Your task to perform on an android device: Check the weather Image 0: 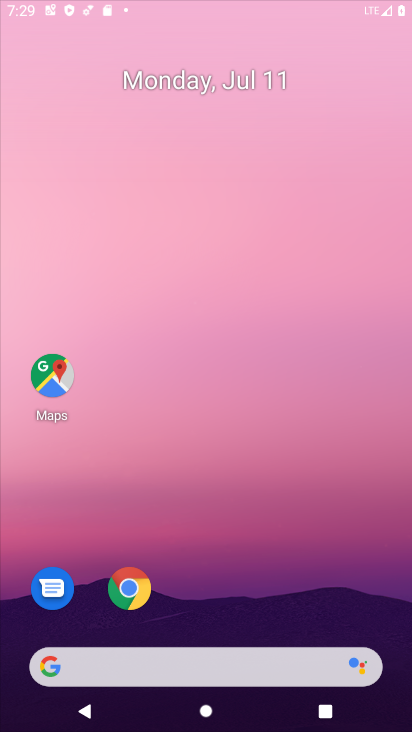
Step 0: click (248, 108)
Your task to perform on an android device: Check the weather Image 1: 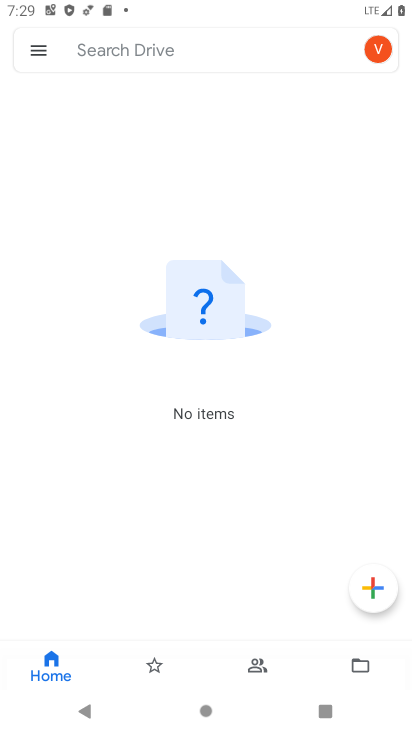
Step 1: press home button
Your task to perform on an android device: Check the weather Image 2: 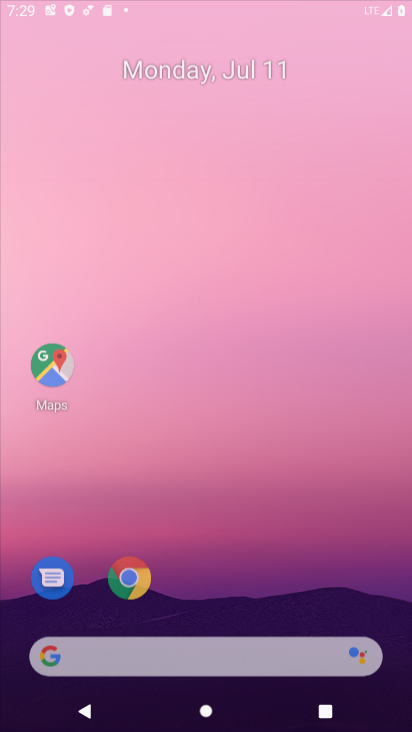
Step 2: drag from (314, 582) to (195, 43)
Your task to perform on an android device: Check the weather Image 3: 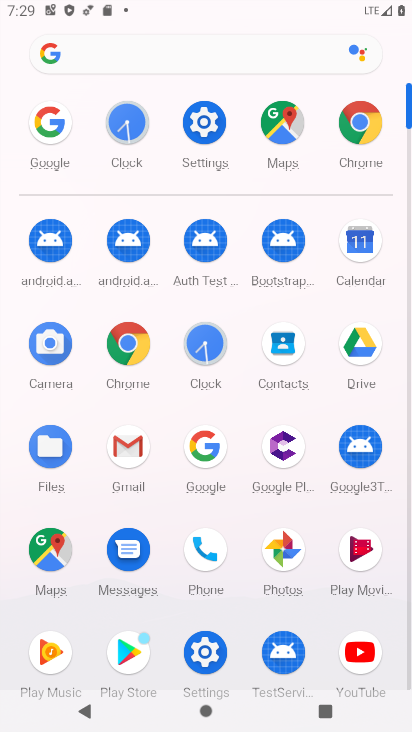
Step 3: click (182, 454)
Your task to perform on an android device: Check the weather Image 4: 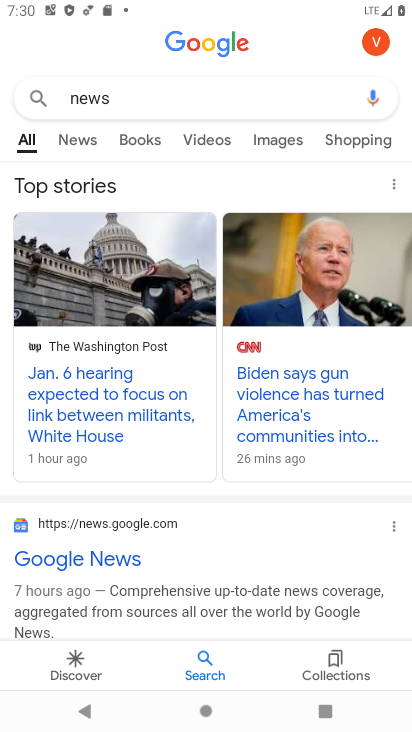
Step 4: press back button
Your task to perform on an android device: Check the weather Image 5: 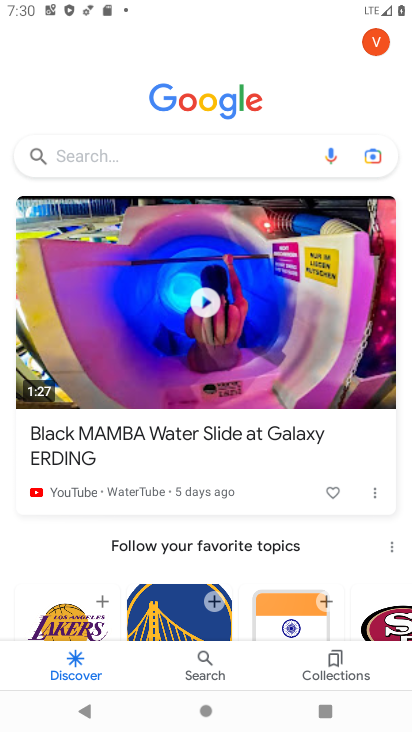
Step 5: click (123, 92)
Your task to perform on an android device: Check the weather Image 6: 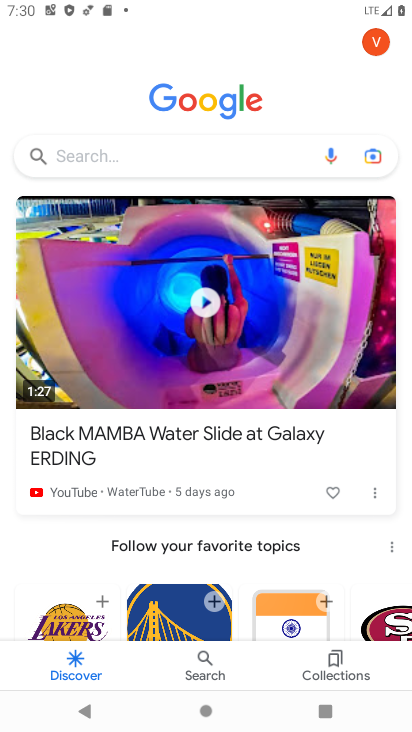
Step 6: click (99, 148)
Your task to perform on an android device: Check the weather Image 7: 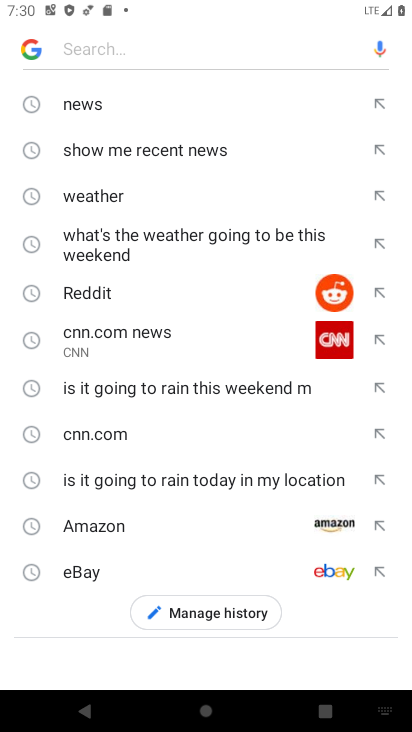
Step 7: click (103, 201)
Your task to perform on an android device: Check the weather Image 8: 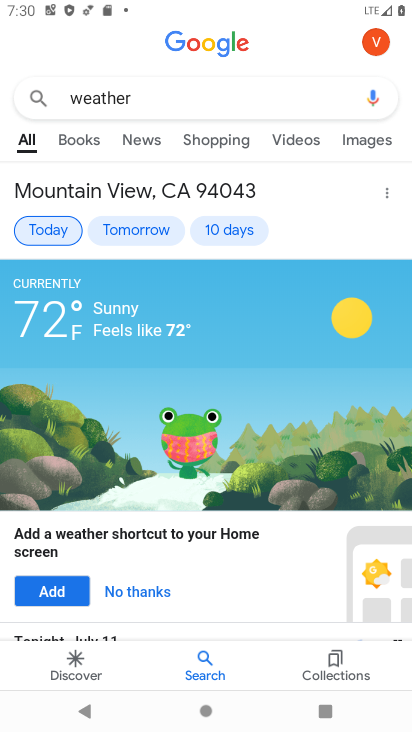
Step 8: task complete